Your task to perform on an android device: Go to sound settings Image 0: 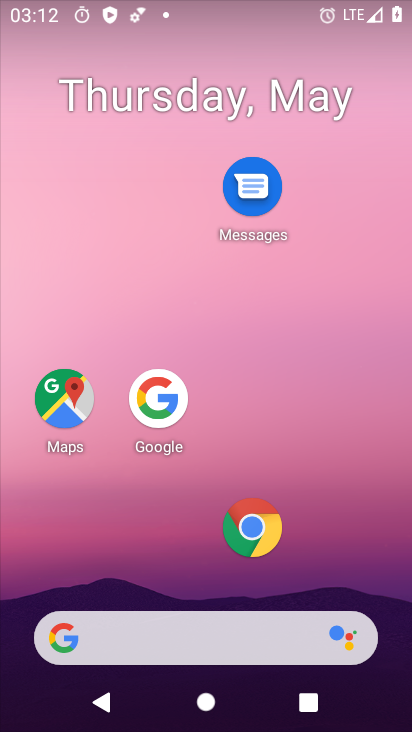
Step 0: drag from (197, 559) to (169, 73)
Your task to perform on an android device: Go to sound settings Image 1: 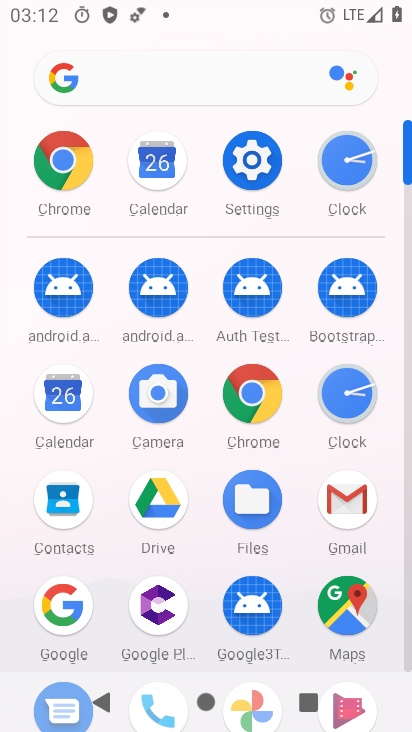
Step 1: click (251, 160)
Your task to perform on an android device: Go to sound settings Image 2: 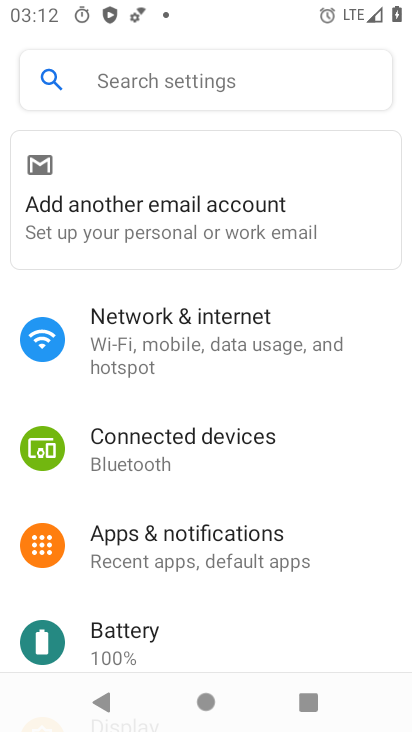
Step 2: drag from (179, 605) to (226, 202)
Your task to perform on an android device: Go to sound settings Image 3: 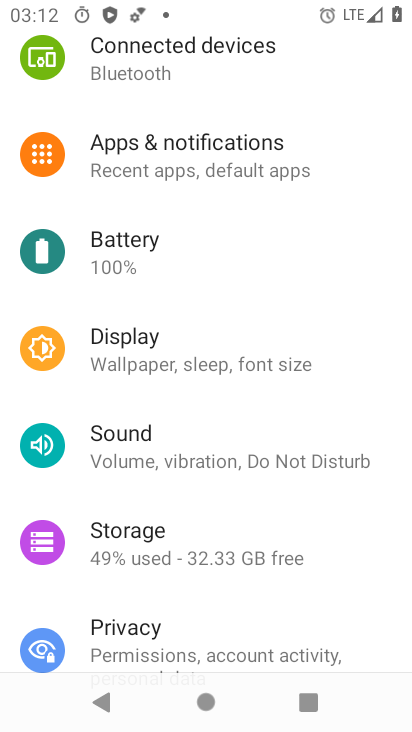
Step 3: click (182, 463)
Your task to perform on an android device: Go to sound settings Image 4: 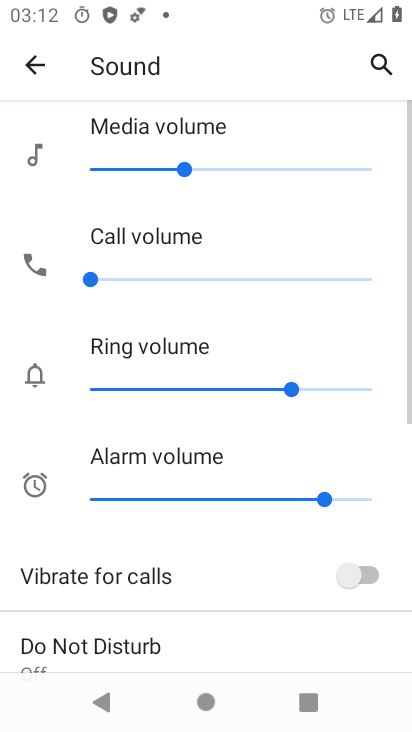
Step 4: task complete